Your task to perform on an android device: Is it going to rain this weekend? Image 0: 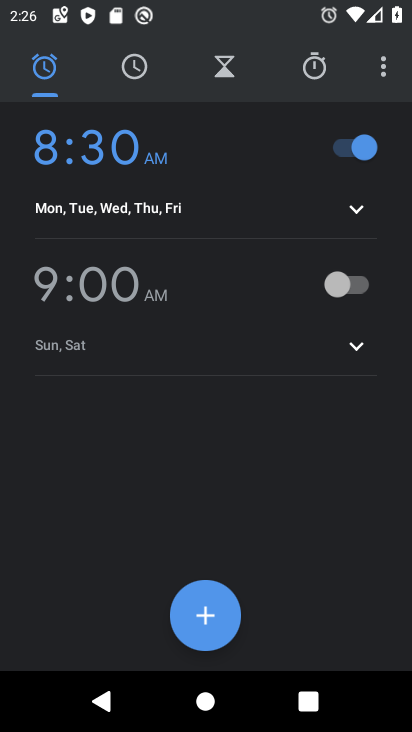
Step 0: press home button
Your task to perform on an android device: Is it going to rain this weekend? Image 1: 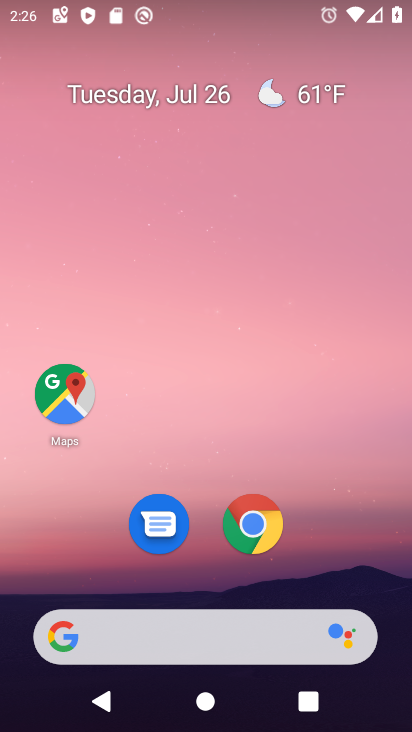
Step 1: click (131, 632)
Your task to perform on an android device: Is it going to rain this weekend? Image 2: 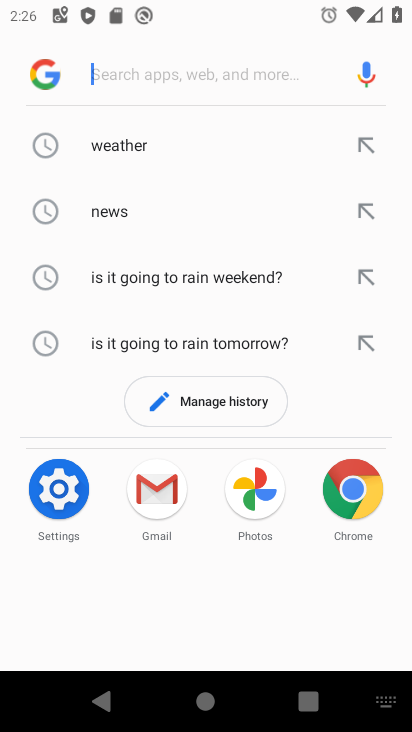
Step 2: click (117, 154)
Your task to perform on an android device: Is it going to rain this weekend? Image 3: 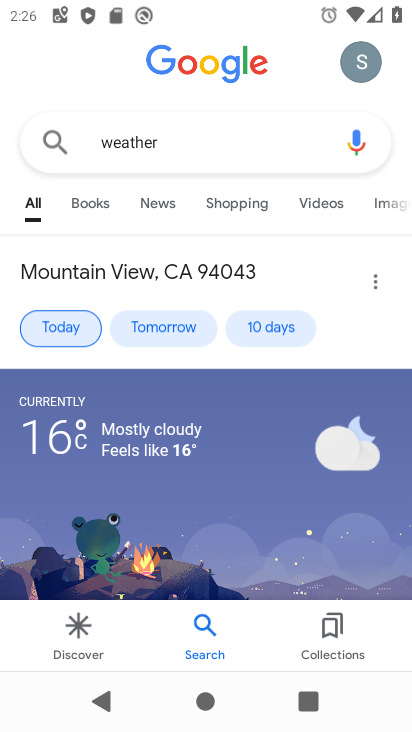
Step 3: click (282, 324)
Your task to perform on an android device: Is it going to rain this weekend? Image 4: 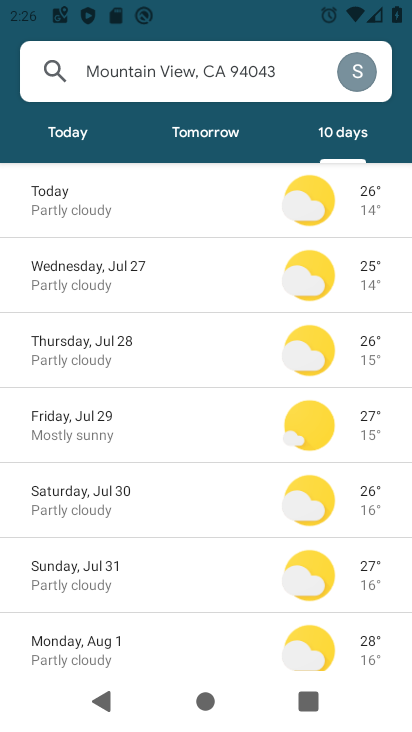
Step 4: drag from (162, 575) to (235, 328)
Your task to perform on an android device: Is it going to rain this weekend? Image 5: 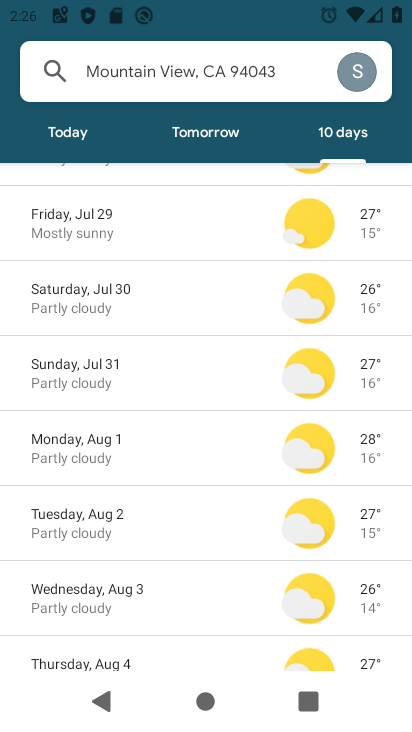
Step 5: click (92, 487)
Your task to perform on an android device: Is it going to rain this weekend? Image 6: 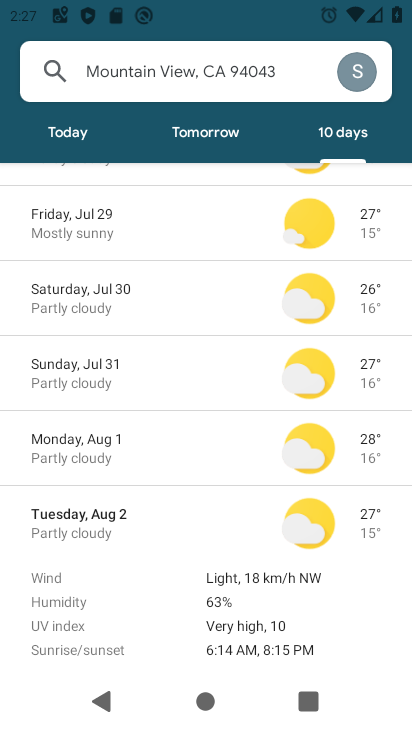
Step 6: drag from (159, 635) to (251, 190)
Your task to perform on an android device: Is it going to rain this weekend? Image 7: 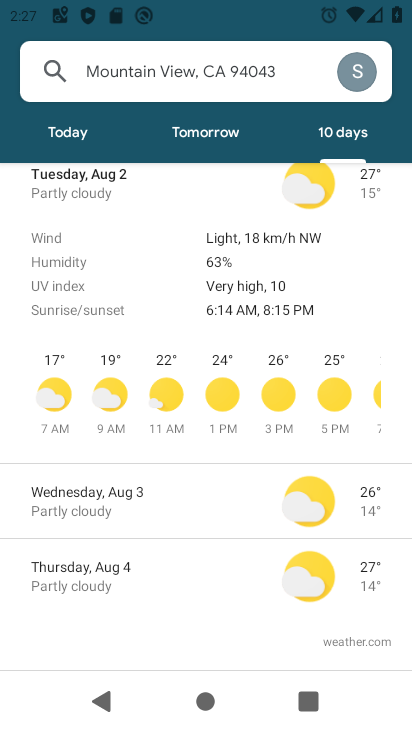
Step 7: drag from (187, 209) to (205, 564)
Your task to perform on an android device: Is it going to rain this weekend? Image 8: 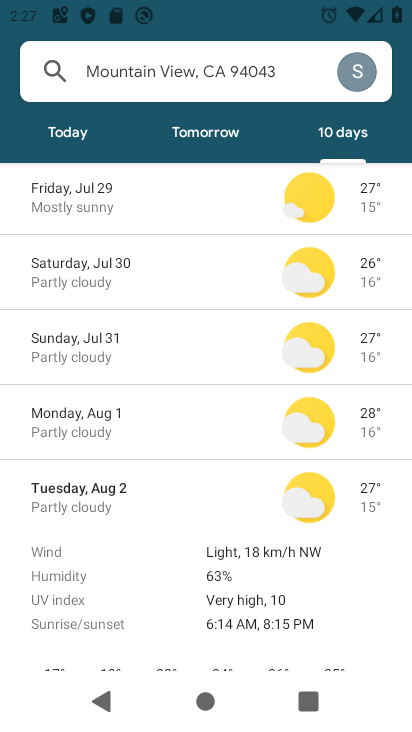
Step 8: click (106, 270)
Your task to perform on an android device: Is it going to rain this weekend? Image 9: 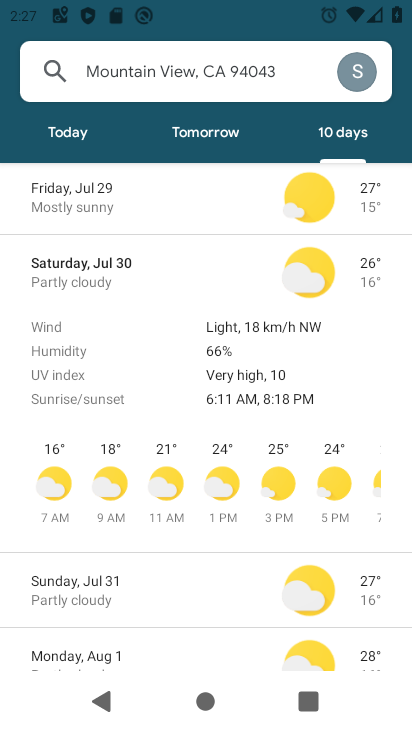
Step 9: task complete